Your task to perform on an android device: set default search engine in the chrome app Image 0: 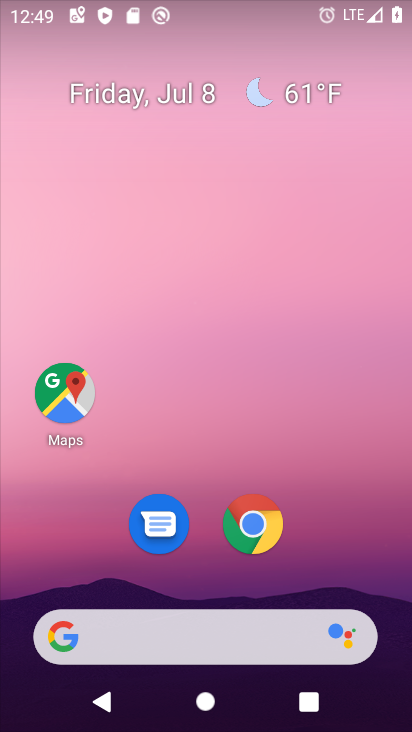
Step 0: click (271, 514)
Your task to perform on an android device: set default search engine in the chrome app Image 1: 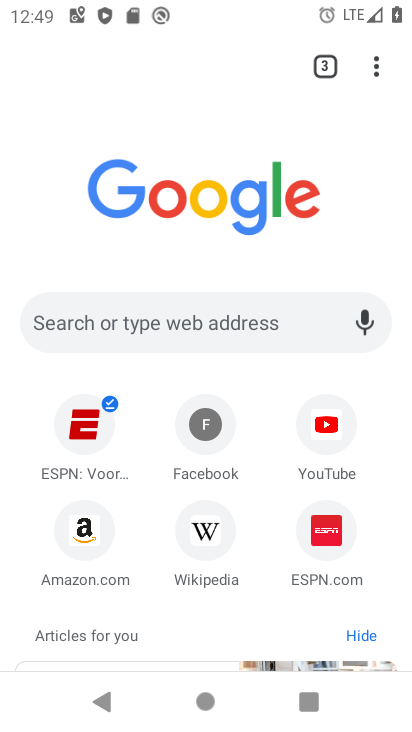
Step 1: click (376, 63)
Your task to perform on an android device: set default search engine in the chrome app Image 2: 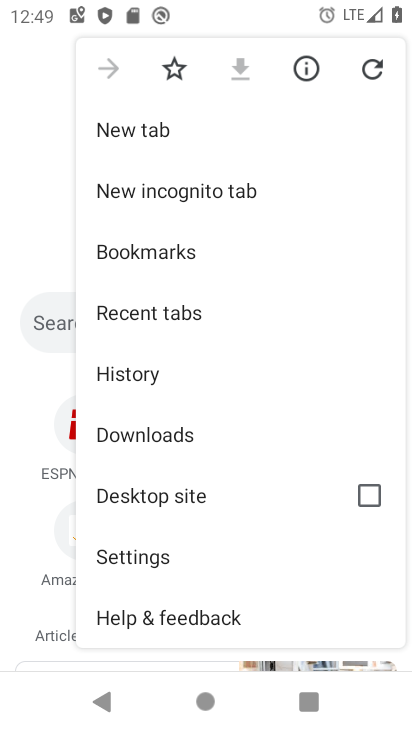
Step 2: click (188, 558)
Your task to perform on an android device: set default search engine in the chrome app Image 3: 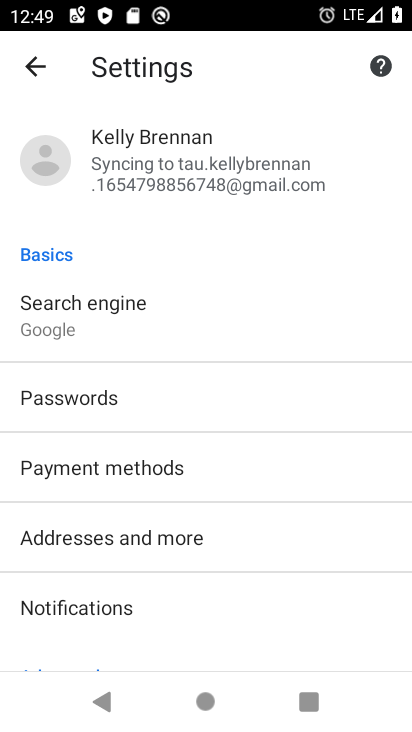
Step 3: click (124, 328)
Your task to perform on an android device: set default search engine in the chrome app Image 4: 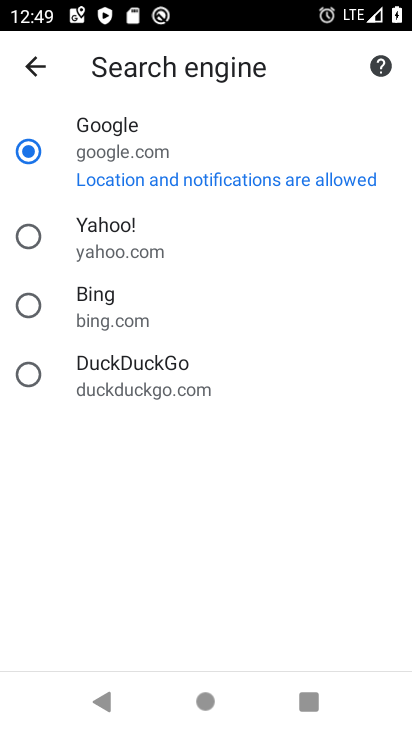
Step 4: task complete